Your task to perform on an android device: open wifi settings Image 0: 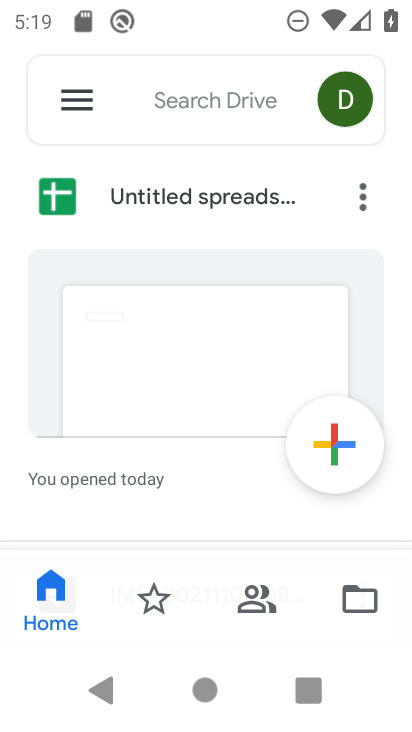
Step 0: press home button
Your task to perform on an android device: open wifi settings Image 1: 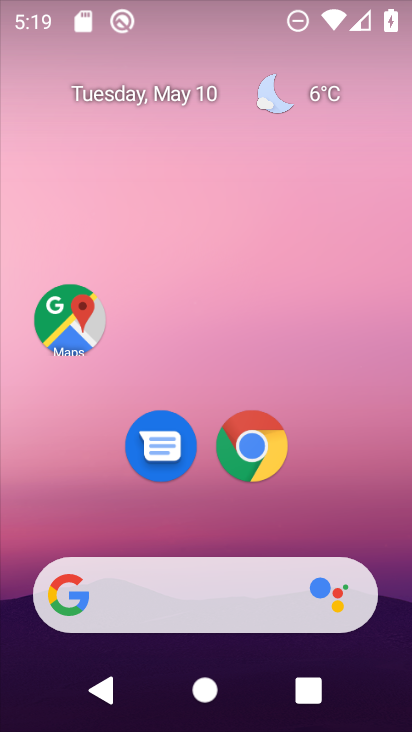
Step 1: drag from (285, 522) to (228, 67)
Your task to perform on an android device: open wifi settings Image 2: 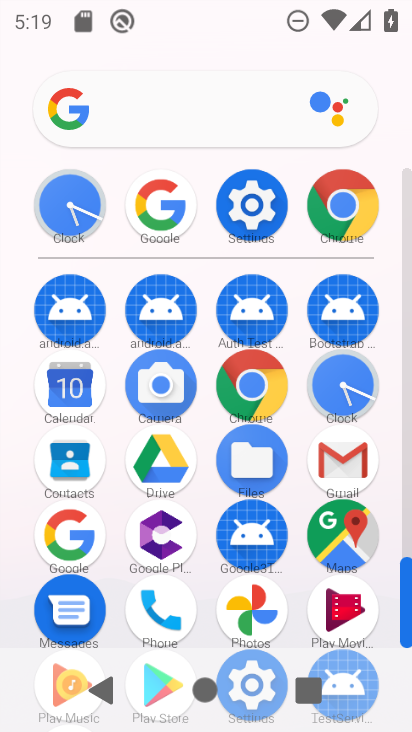
Step 2: click (270, 201)
Your task to perform on an android device: open wifi settings Image 3: 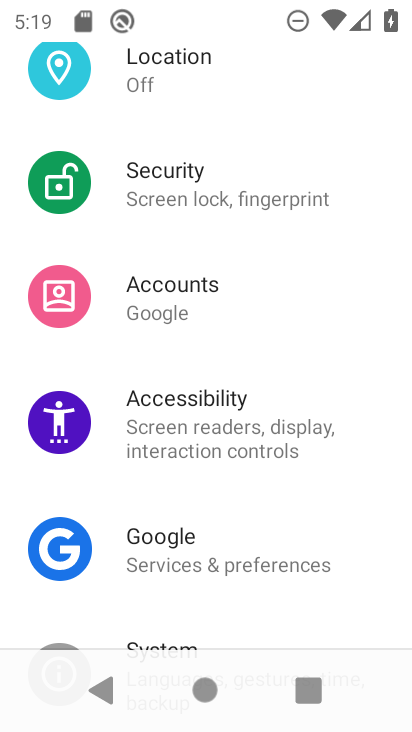
Step 3: drag from (316, 138) to (196, 616)
Your task to perform on an android device: open wifi settings Image 4: 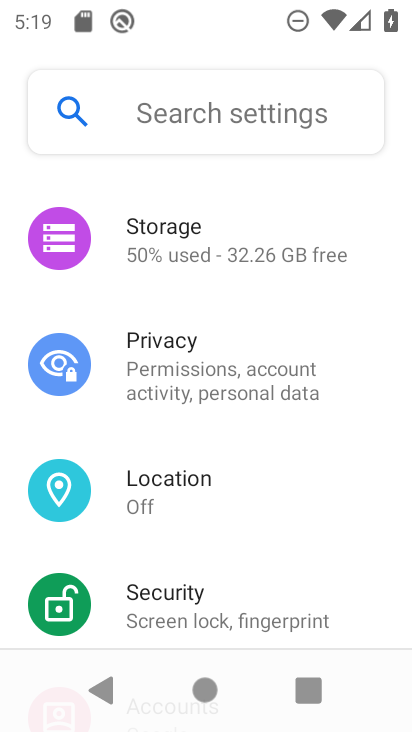
Step 4: drag from (279, 234) to (234, 559)
Your task to perform on an android device: open wifi settings Image 5: 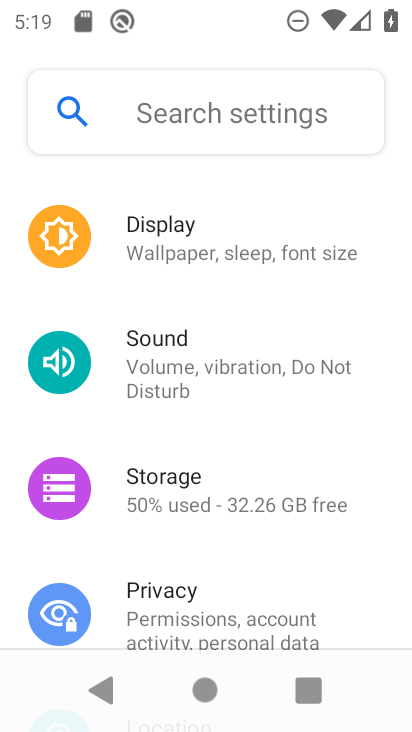
Step 5: drag from (243, 230) to (178, 571)
Your task to perform on an android device: open wifi settings Image 6: 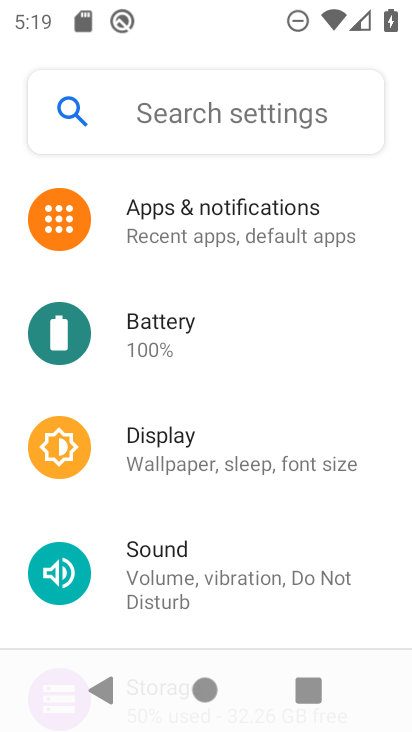
Step 6: drag from (244, 311) to (237, 669)
Your task to perform on an android device: open wifi settings Image 7: 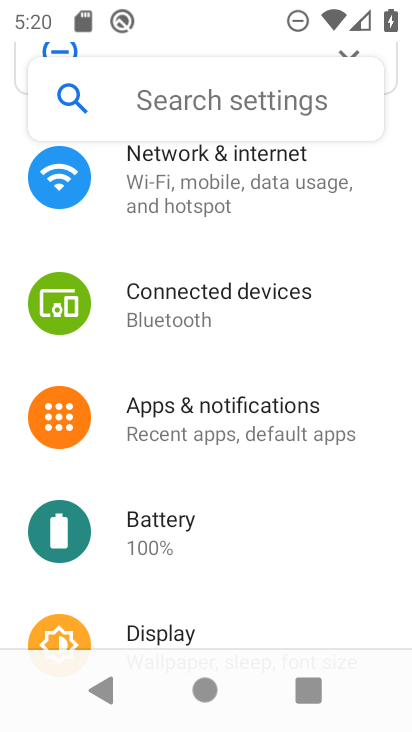
Step 7: click (211, 203)
Your task to perform on an android device: open wifi settings Image 8: 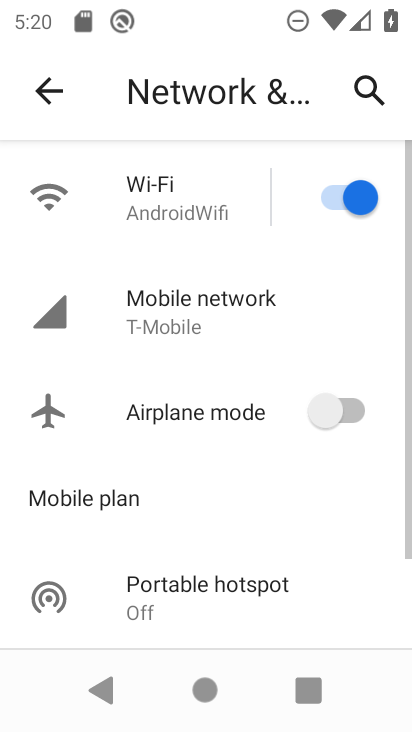
Step 8: click (176, 187)
Your task to perform on an android device: open wifi settings Image 9: 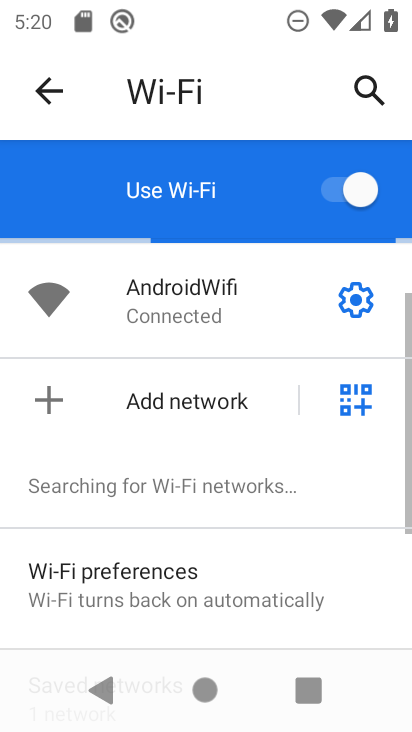
Step 9: task complete